Your task to perform on an android device: Open calendar and show me the fourth week of next month Image 0: 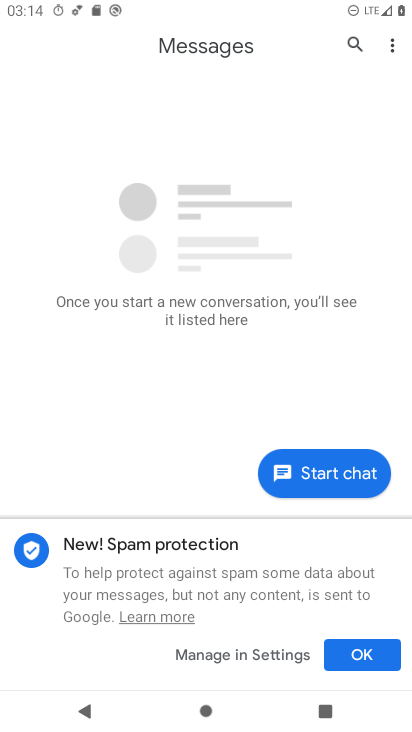
Step 0: press home button
Your task to perform on an android device: Open calendar and show me the fourth week of next month Image 1: 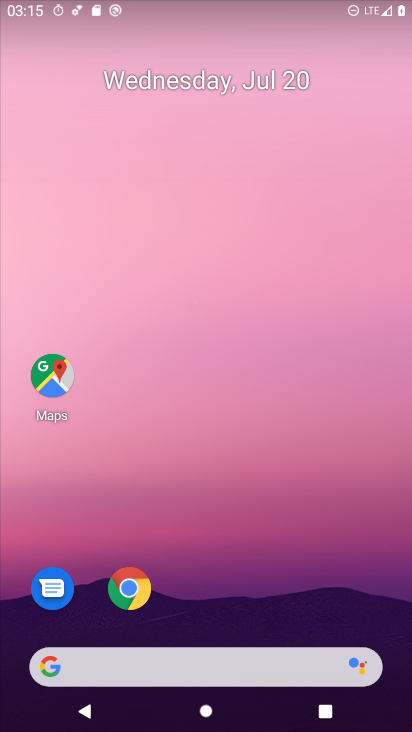
Step 1: drag from (206, 614) to (377, 0)
Your task to perform on an android device: Open calendar and show me the fourth week of next month Image 2: 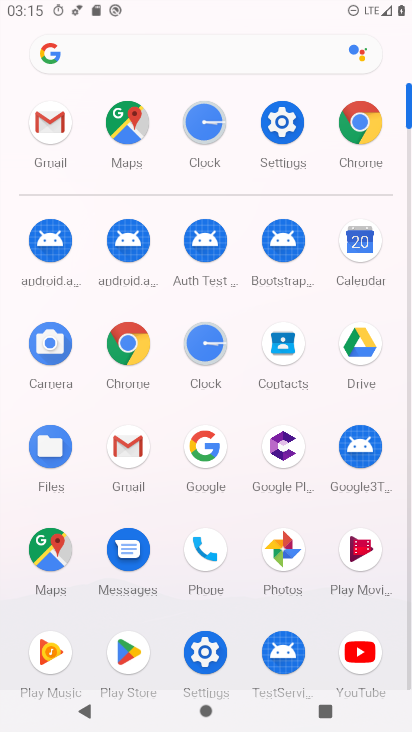
Step 2: click (352, 247)
Your task to perform on an android device: Open calendar and show me the fourth week of next month Image 3: 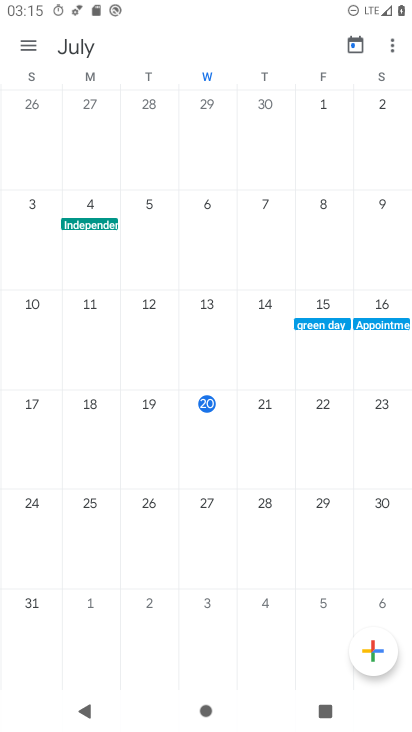
Step 3: click (335, 45)
Your task to perform on an android device: Open calendar and show me the fourth week of next month Image 4: 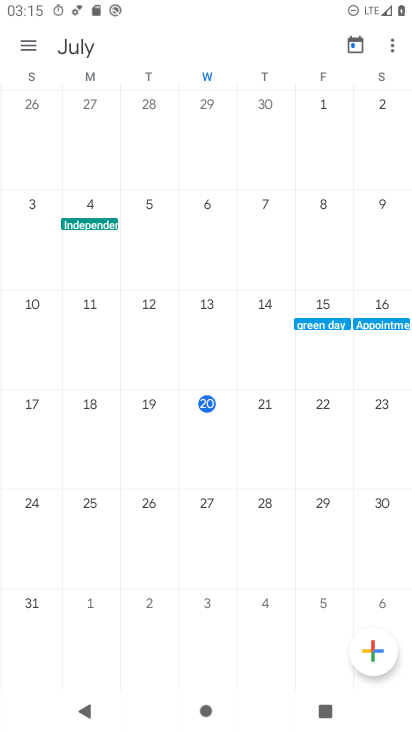
Step 4: click (44, 45)
Your task to perform on an android device: Open calendar and show me the fourth week of next month Image 5: 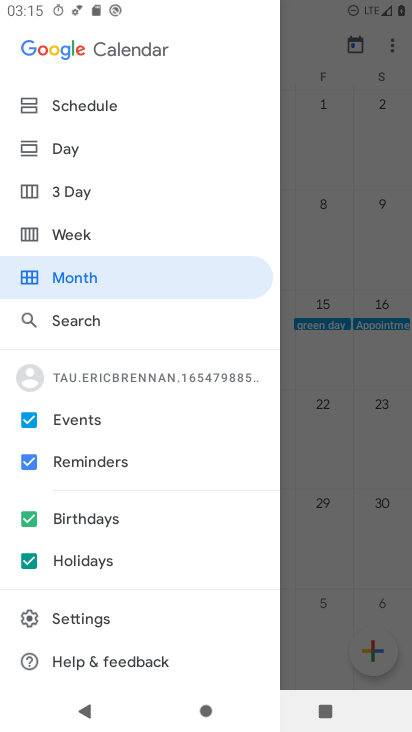
Step 5: click (61, 227)
Your task to perform on an android device: Open calendar and show me the fourth week of next month Image 6: 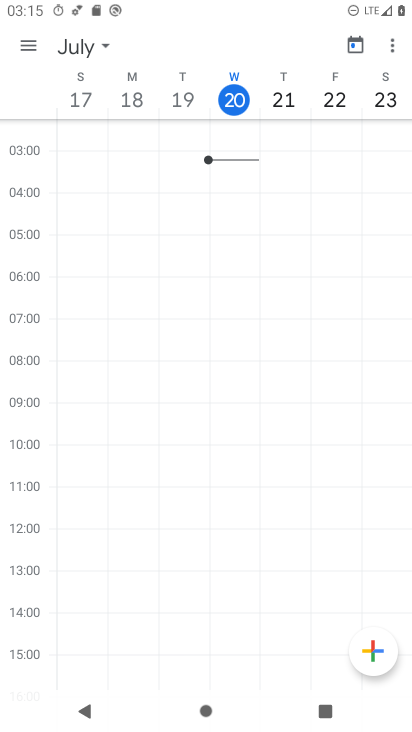
Step 6: task complete